Your task to perform on an android device: Open the stopwatch Image 0: 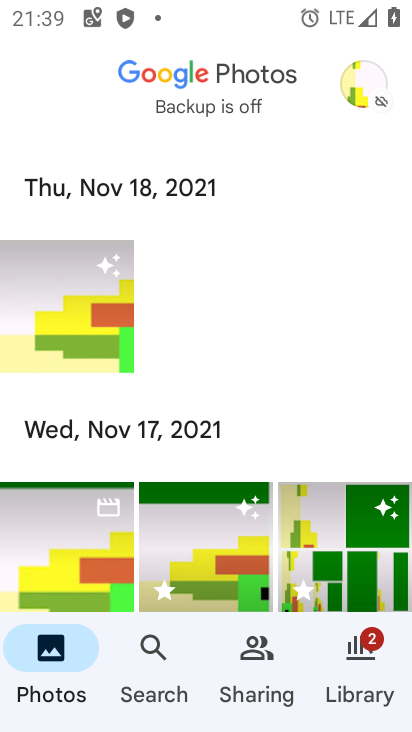
Step 0: press home button
Your task to perform on an android device: Open the stopwatch Image 1: 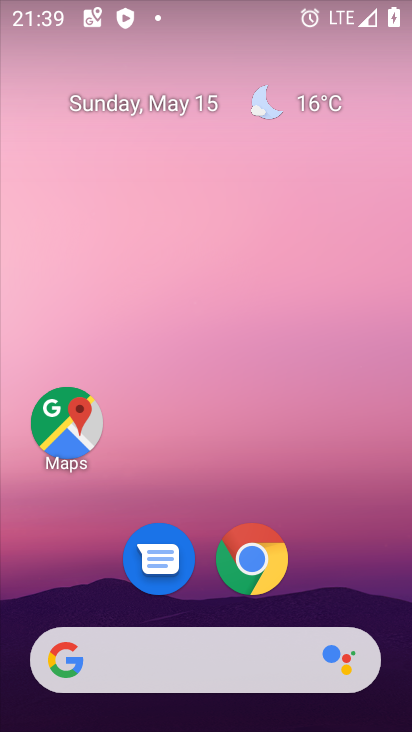
Step 1: drag from (200, 477) to (141, 68)
Your task to perform on an android device: Open the stopwatch Image 2: 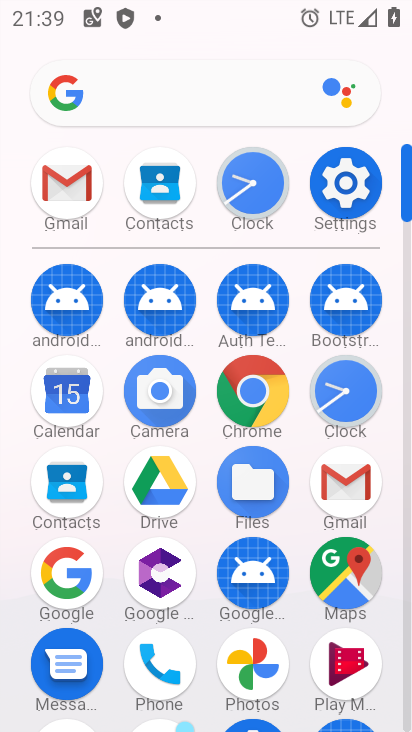
Step 2: click (341, 376)
Your task to perform on an android device: Open the stopwatch Image 3: 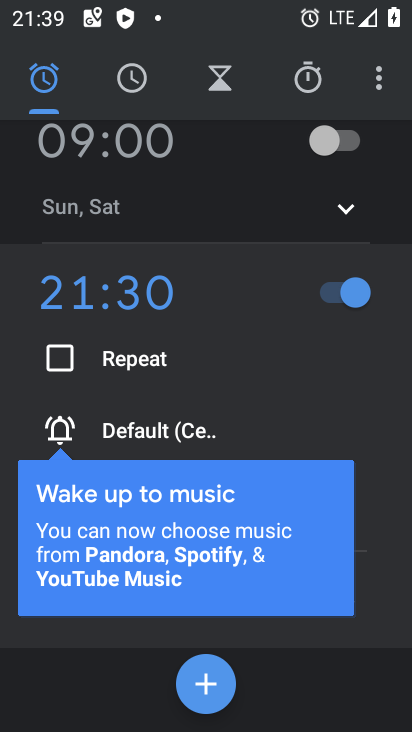
Step 3: click (318, 74)
Your task to perform on an android device: Open the stopwatch Image 4: 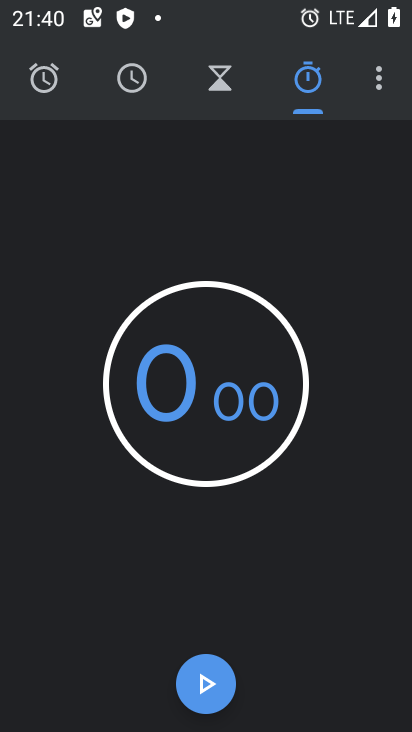
Step 4: task complete